Your task to perform on an android device: turn on airplane mode Image 0: 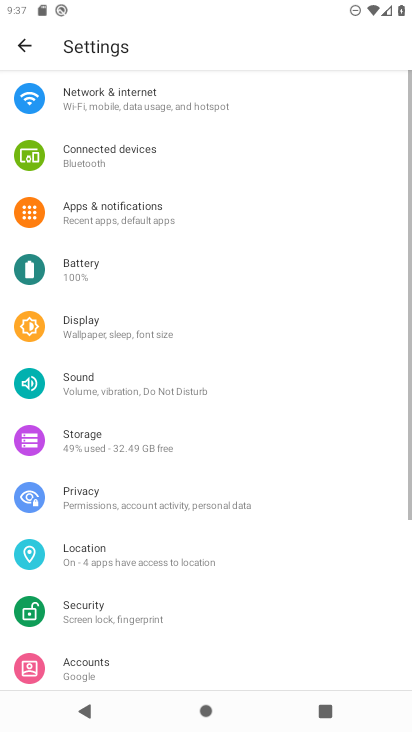
Step 0: drag from (243, 7) to (203, 510)
Your task to perform on an android device: turn on airplane mode Image 1: 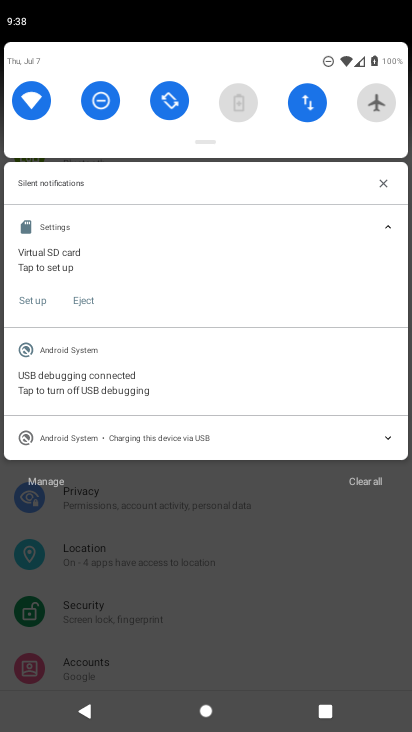
Step 1: click (203, 510)
Your task to perform on an android device: turn on airplane mode Image 2: 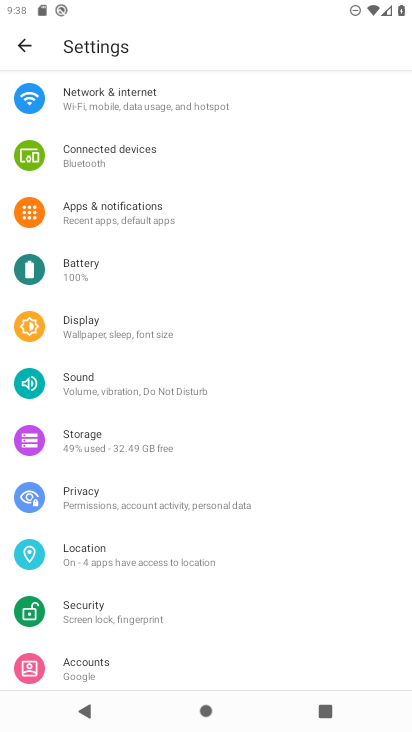
Step 2: click (248, 110)
Your task to perform on an android device: turn on airplane mode Image 3: 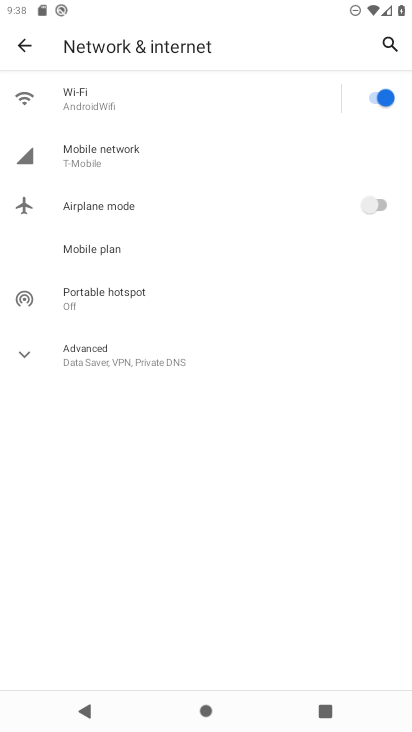
Step 3: click (377, 203)
Your task to perform on an android device: turn on airplane mode Image 4: 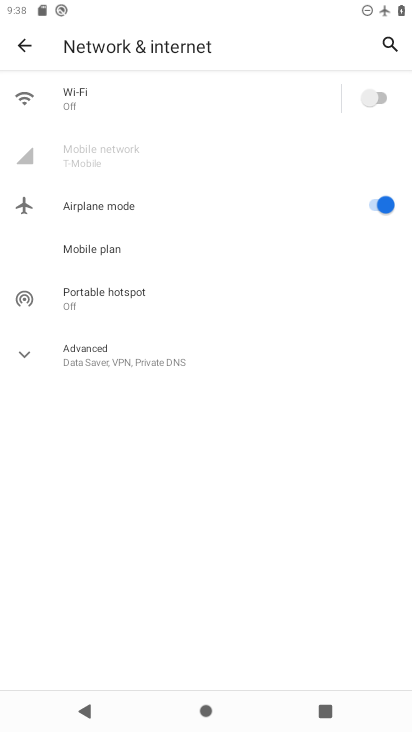
Step 4: task complete